Your task to perform on an android device: clear history in the chrome app Image 0: 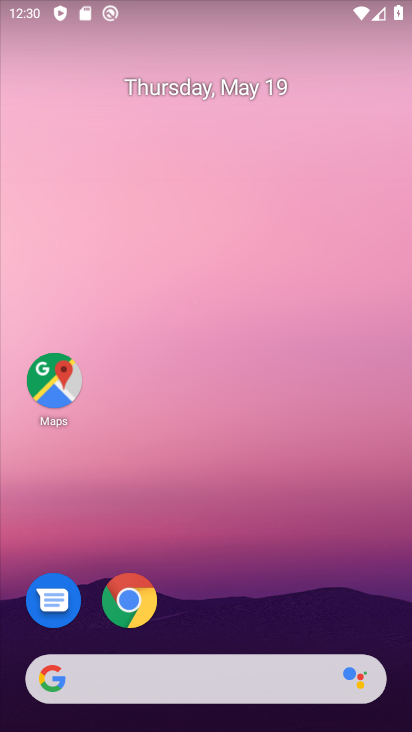
Step 0: click (116, 620)
Your task to perform on an android device: clear history in the chrome app Image 1: 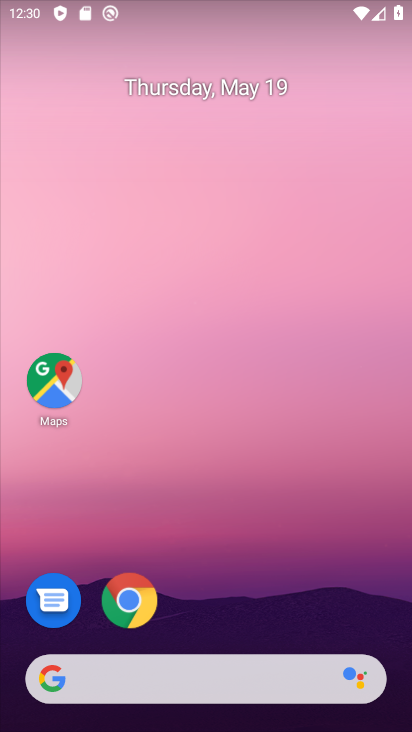
Step 1: click (116, 620)
Your task to perform on an android device: clear history in the chrome app Image 2: 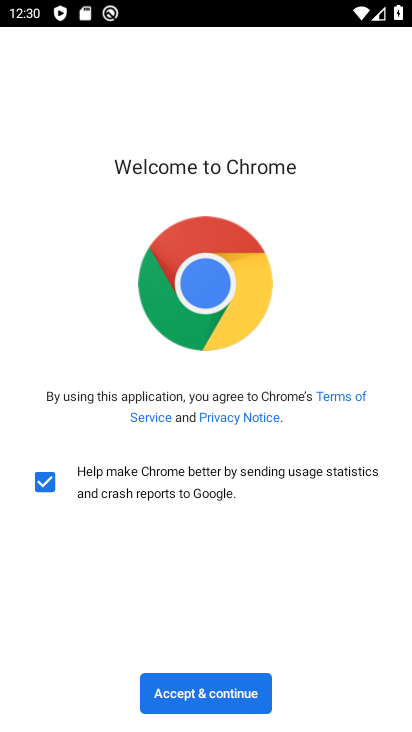
Step 2: click (187, 684)
Your task to perform on an android device: clear history in the chrome app Image 3: 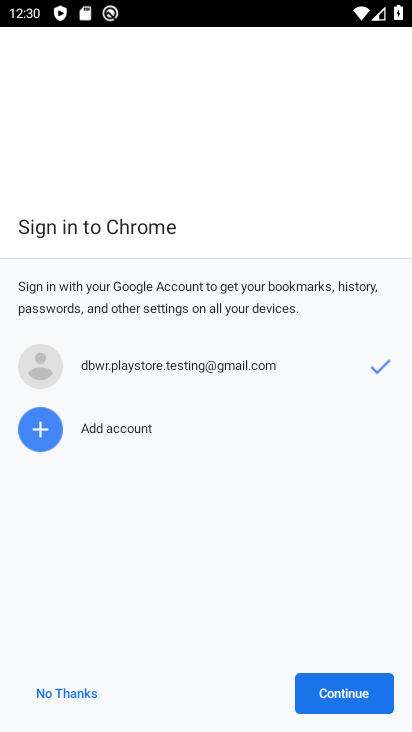
Step 3: click (321, 684)
Your task to perform on an android device: clear history in the chrome app Image 4: 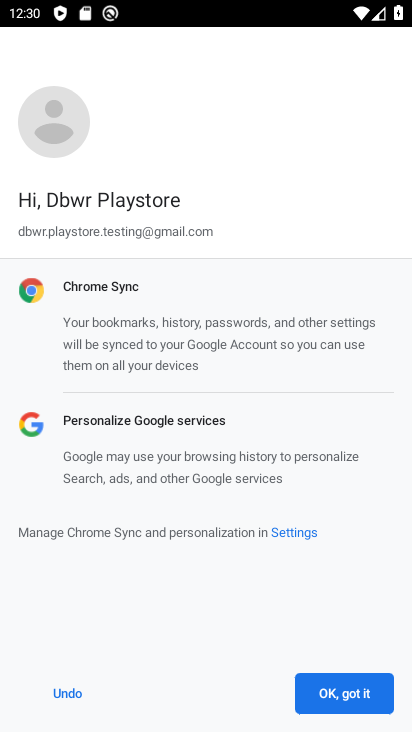
Step 4: click (321, 684)
Your task to perform on an android device: clear history in the chrome app Image 5: 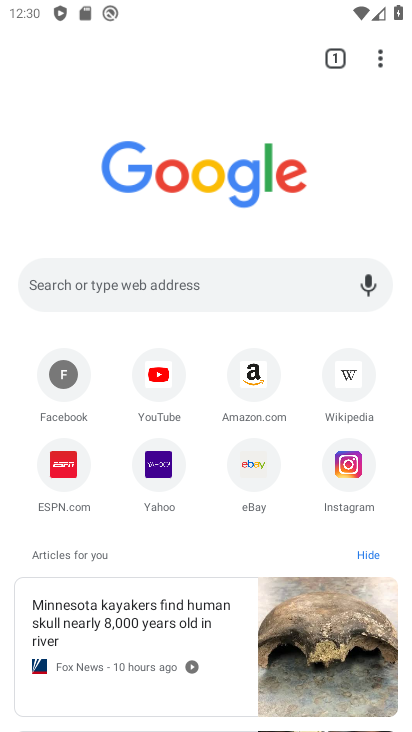
Step 5: click (367, 58)
Your task to perform on an android device: clear history in the chrome app Image 6: 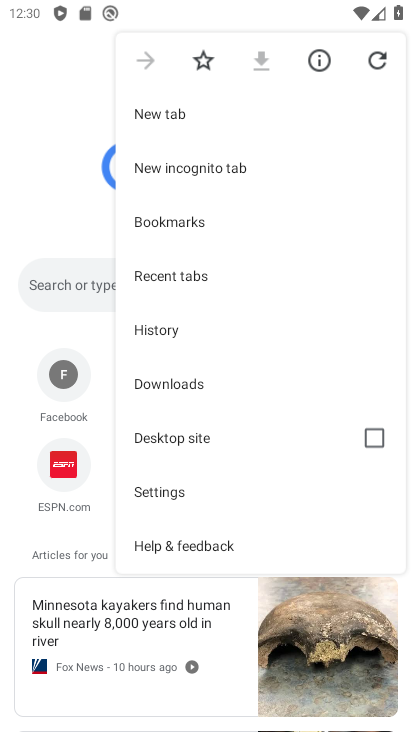
Step 6: click (235, 490)
Your task to perform on an android device: clear history in the chrome app Image 7: 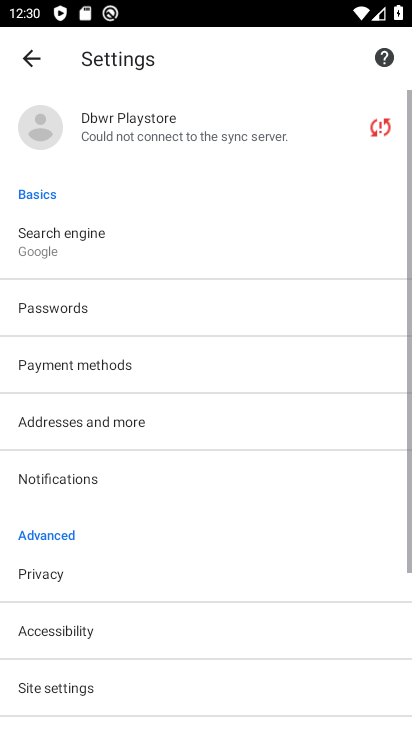
Step 7: click (235, 490)
Your task to perform on an android device: clear history in the chrome app Image 8: 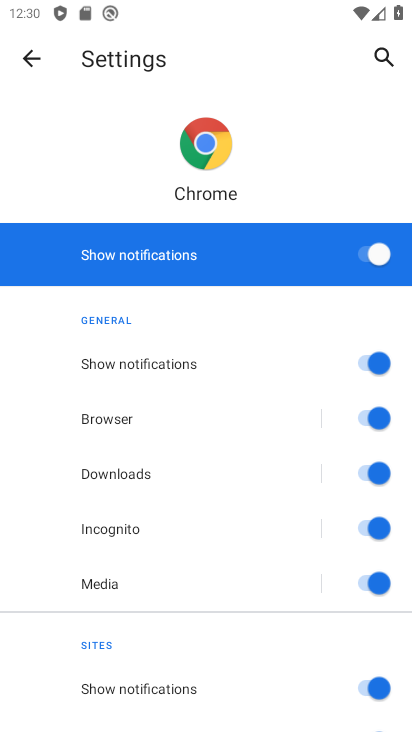
Step 8: press home button
Your task to perform on an android device: clear history in the chrome app Image 9: 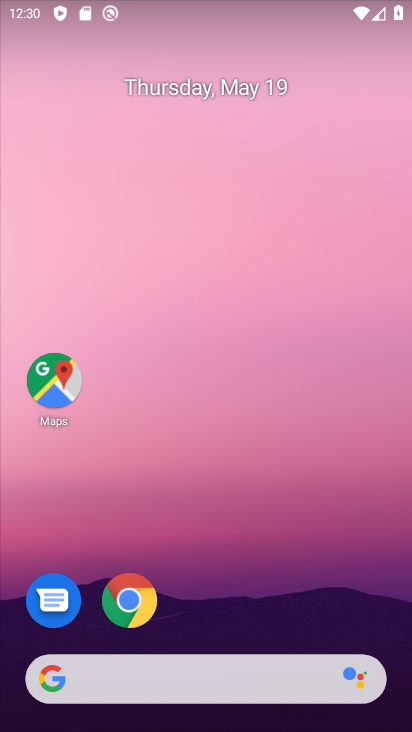
Step 9: click (120, 613)
Your task to perform on an android device: clear history in the chrome app Image 10: 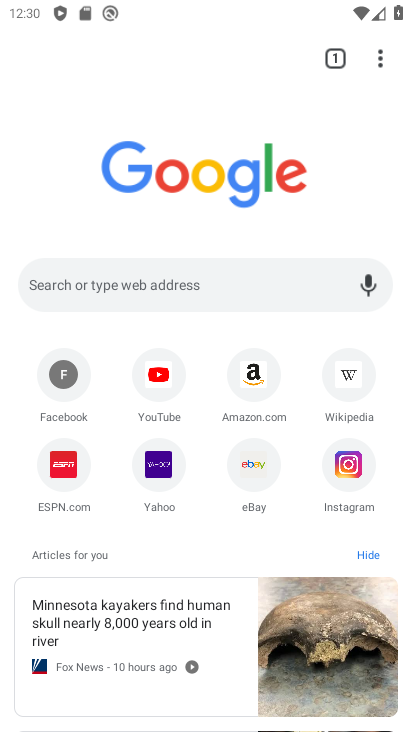
Step 10: click (376, 60)
Your task to perform on an android device: clear history in the chrome app Image 11: 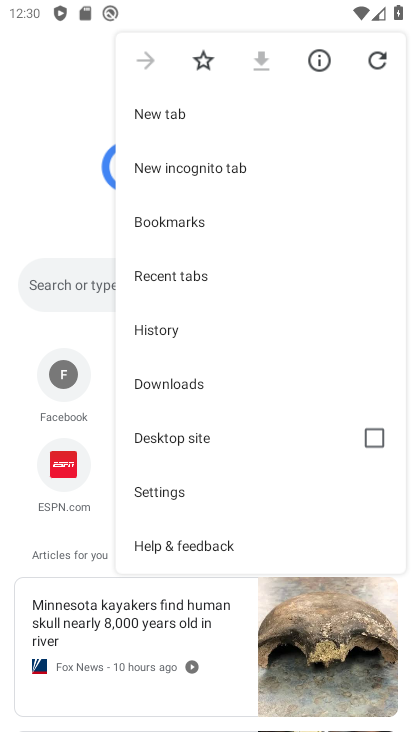
Step 11: click (221, 336)
Your task to perform on an android device: clear history in the chrome app Image 12: 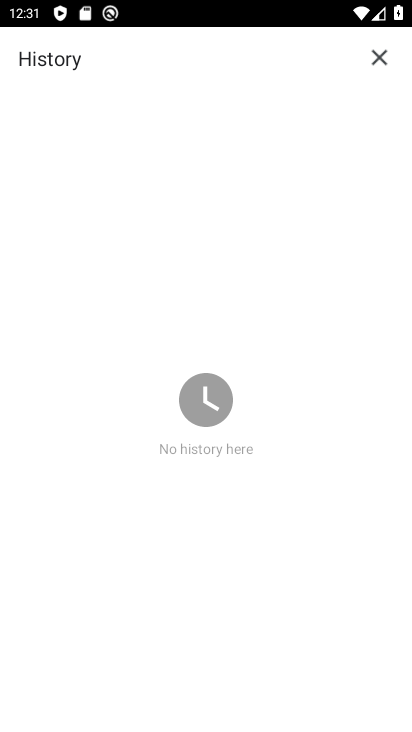
Step 12: click (382, 49)
Your task to perform on an android device: clear history in the chrome app Image 13: 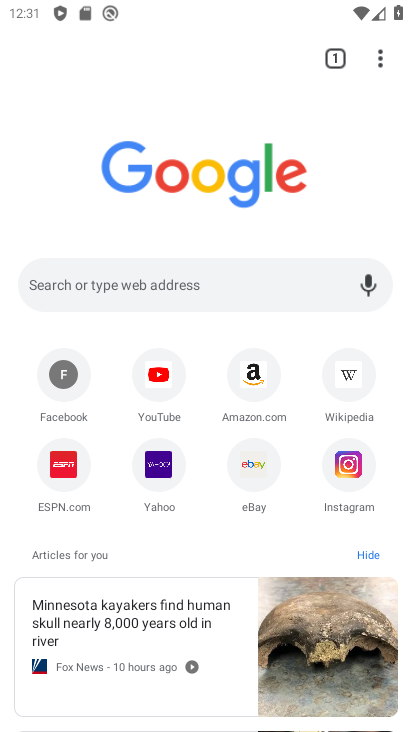
Step 13: task complete